Your task to perform on an android device: Search for a sofa on article.com Image 0: 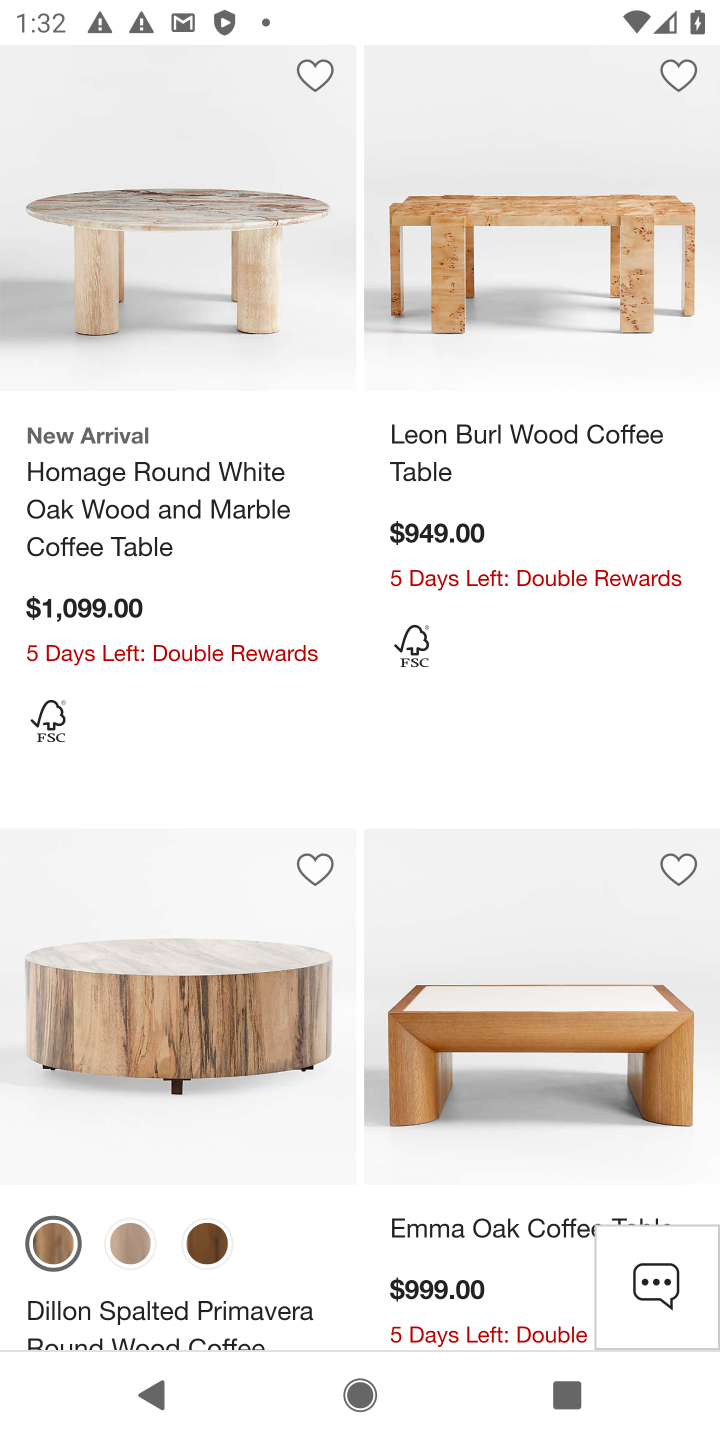
Step 0: press home button
Your task to perform on an android device: Search for a sofa on article.com Image 1: 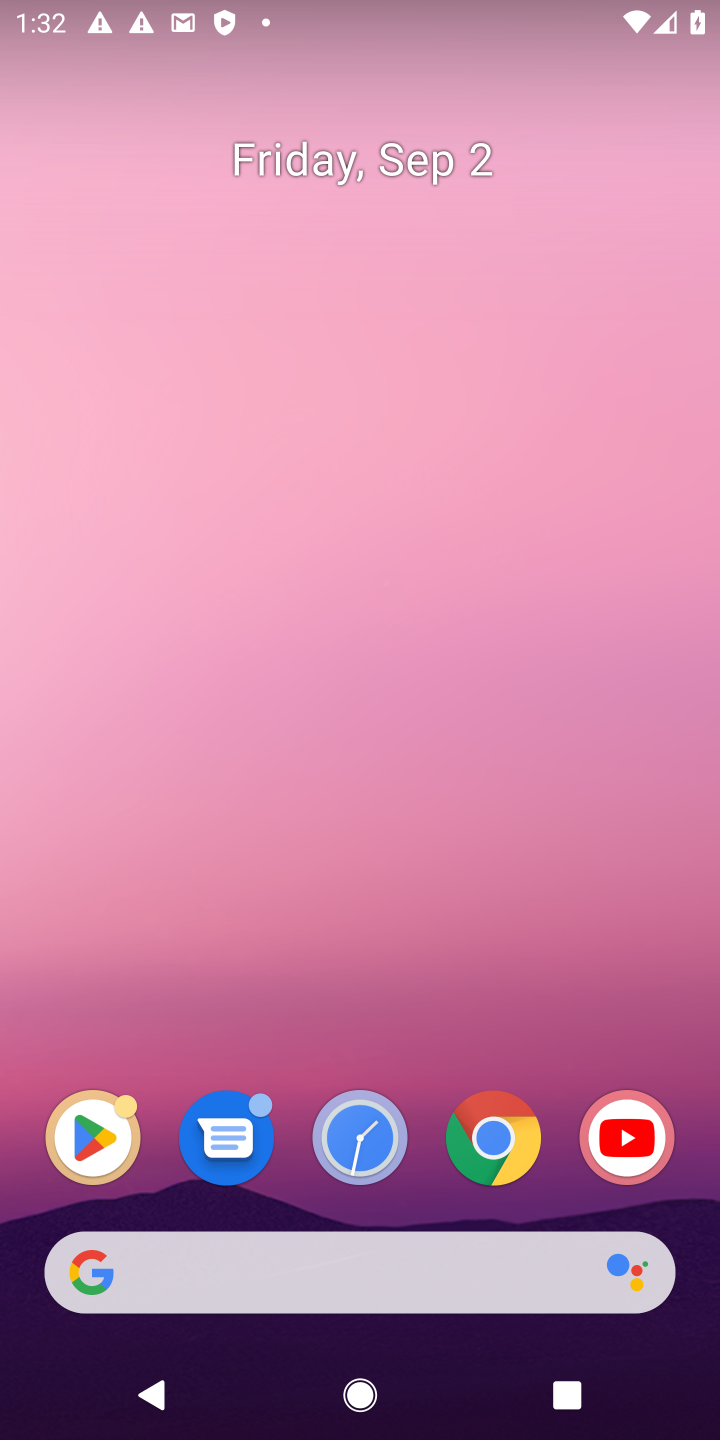
Step 1: click (484, 1147)
Your task to perform on an android device: Search for a sofa on article.com Image 2: 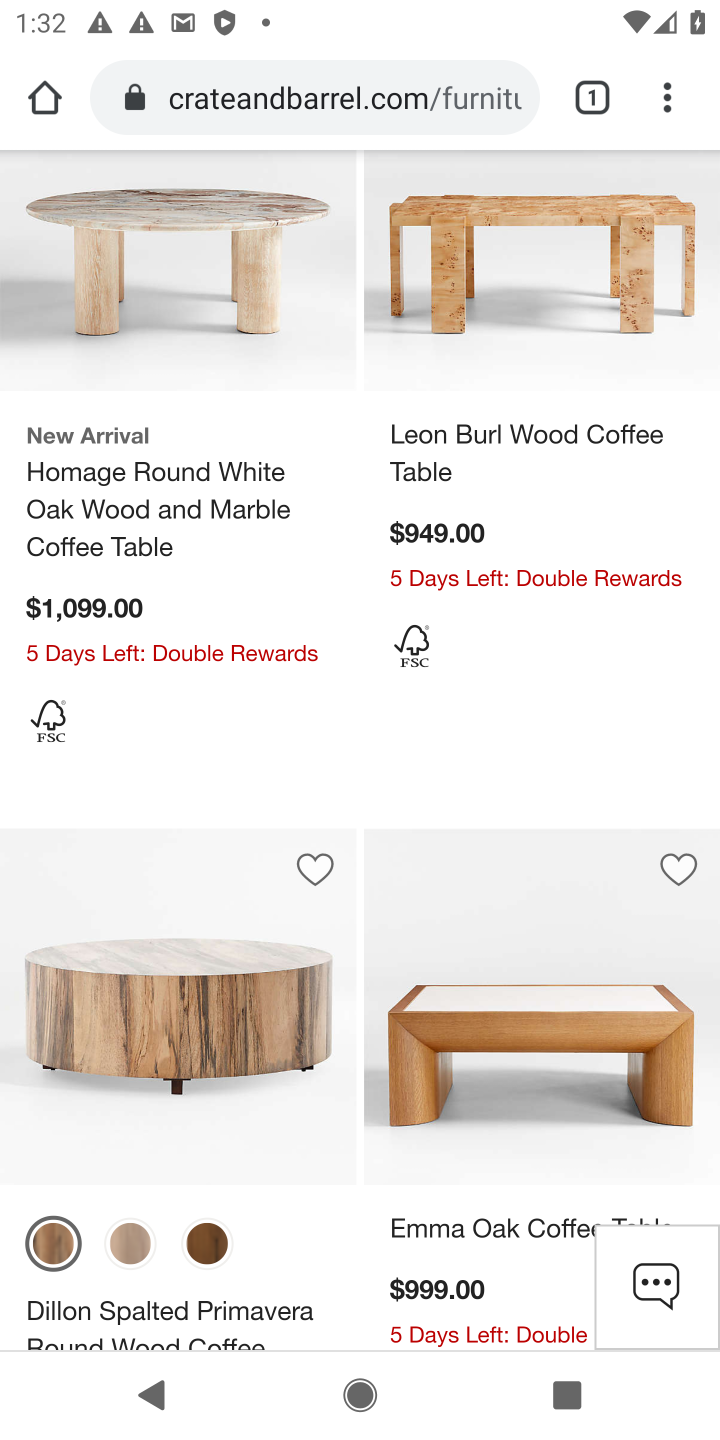
Step 2: click (592, 93)
Your task to perform on an android device: Search for a sofa on article.com Image 3: 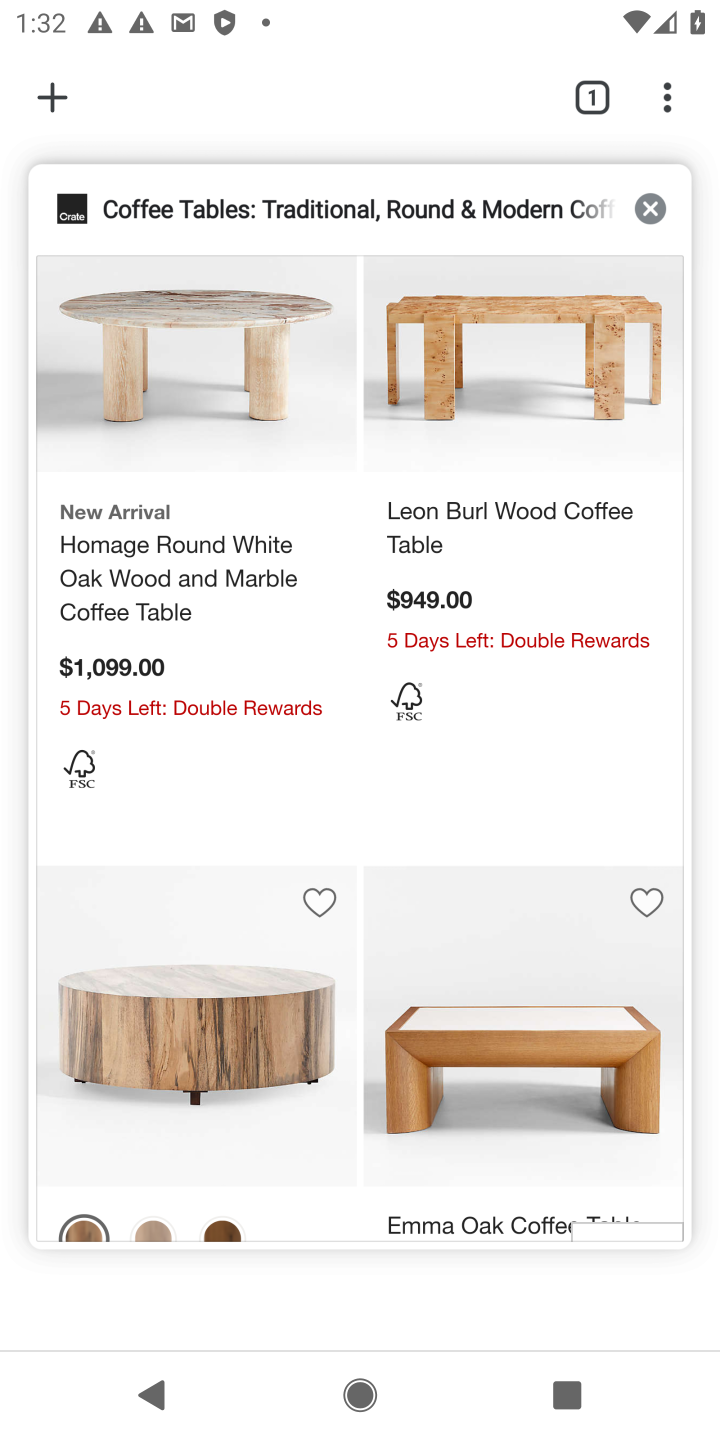
Step 3: click (285, 411)
Your task to perform on an android device: Search for a sofa on article.com Image 4: 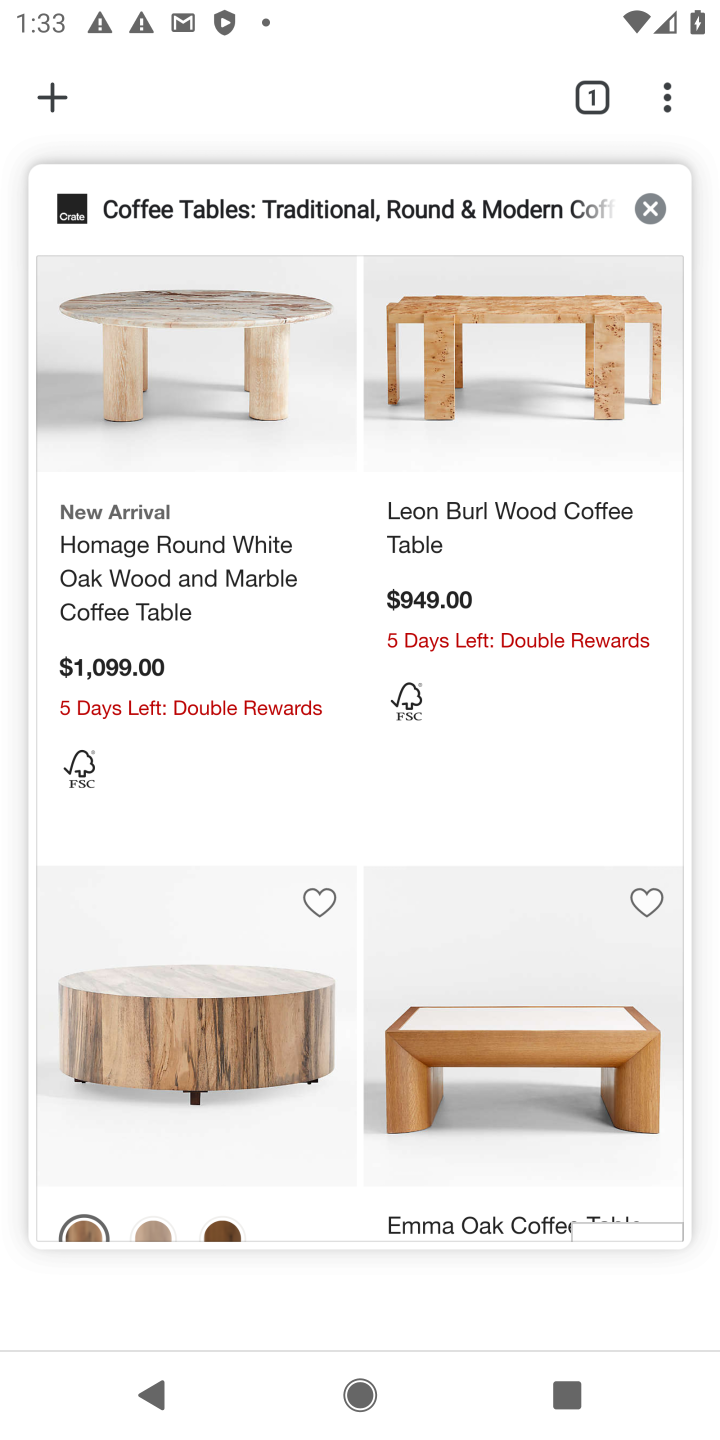
Step 4: click (38, 96)
Your task to perform on an android device: Search for a sofa on article.com Image 5: 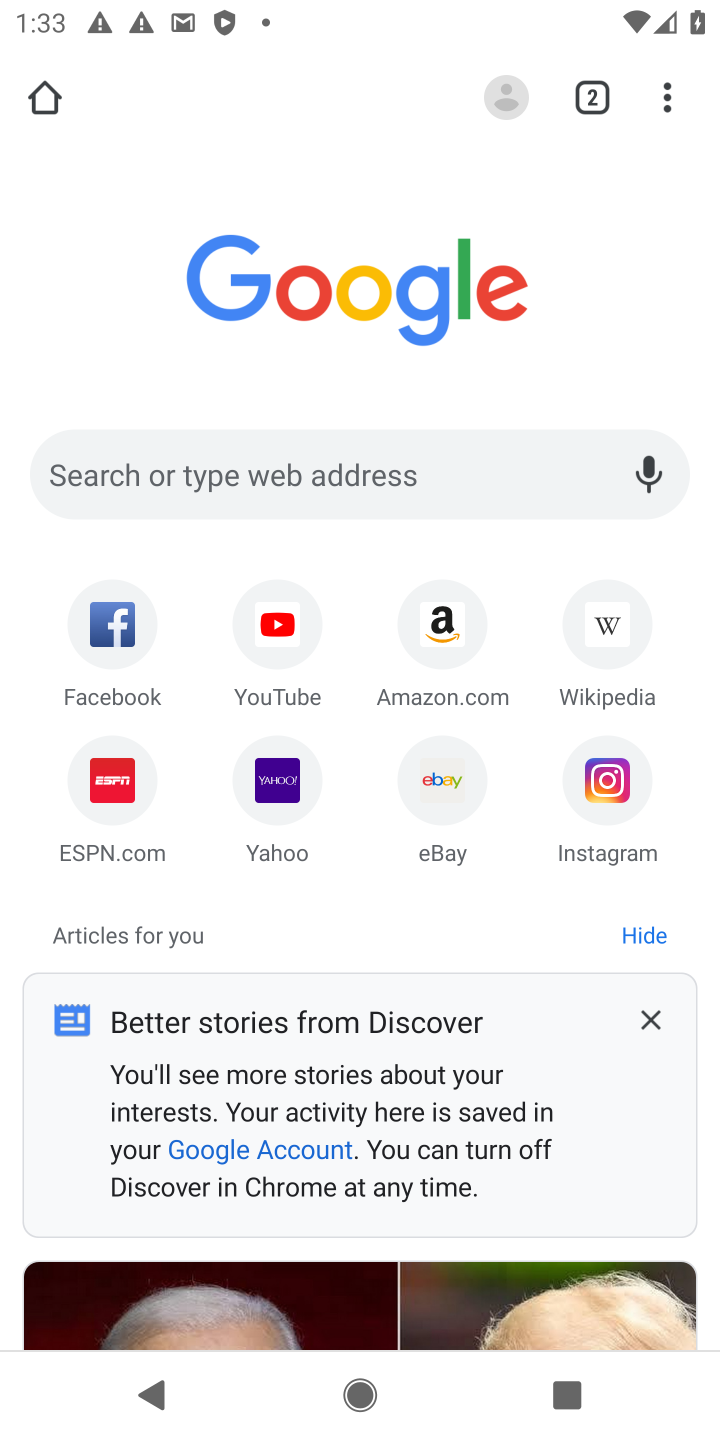
Step 5: click (119, 462)
Your task to perform on an android device: Search for a sofa on article.com Image 6: 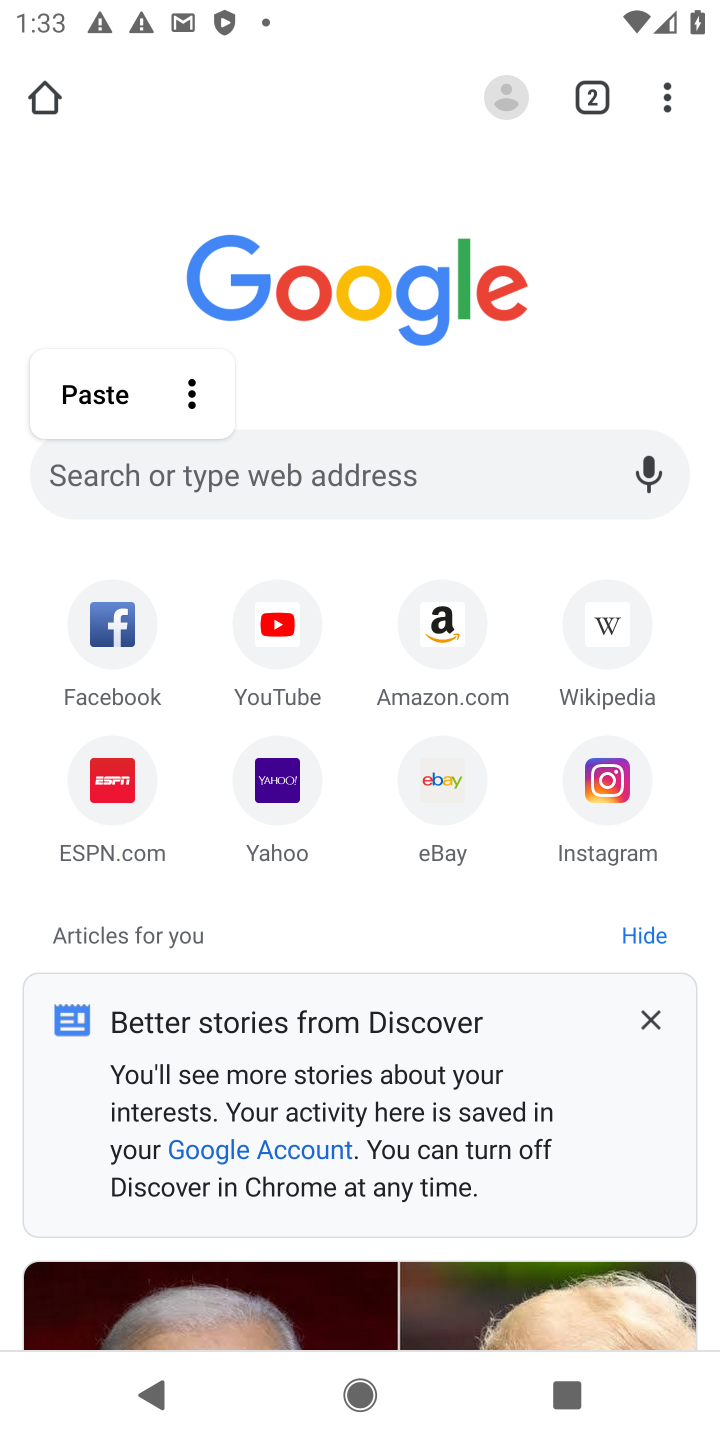
Step 6: click (186, 473)
Your task to perform on an android device: Search for a sofa on article.com Image 7: 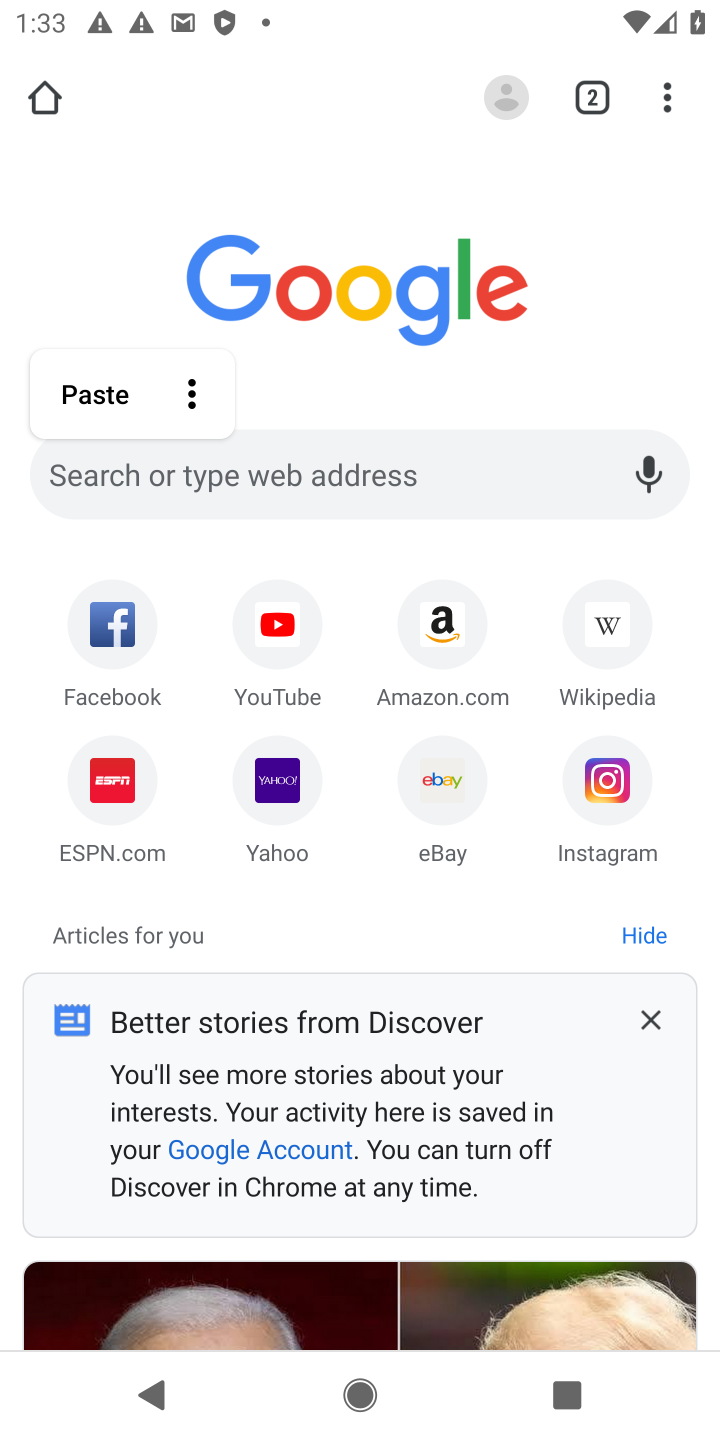
Step 7: click (159, 470)
Your task to perform on an android device: Search for a sofa on article.com Image 8: 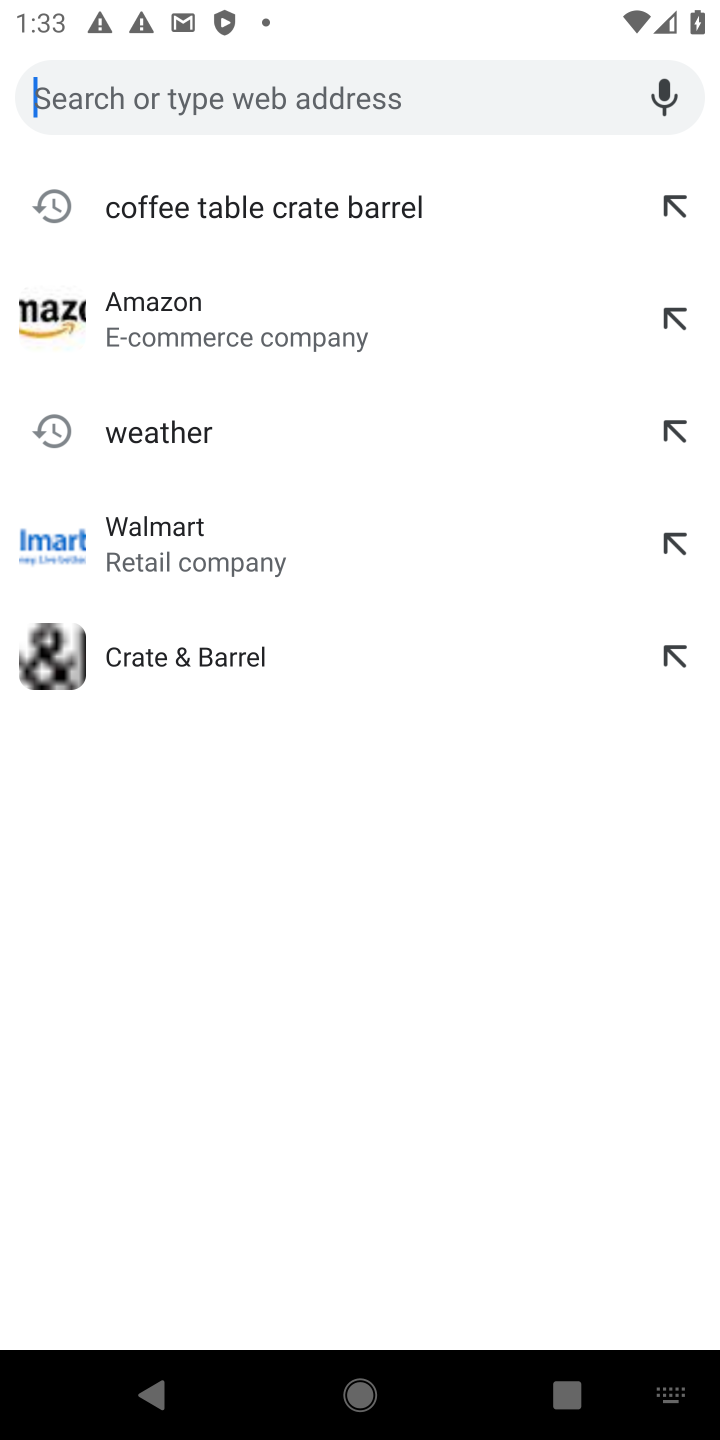
Step 8: type "sofa on article.com"
Your task to perform on an android device: Search for a sofa on article.com Image 9: 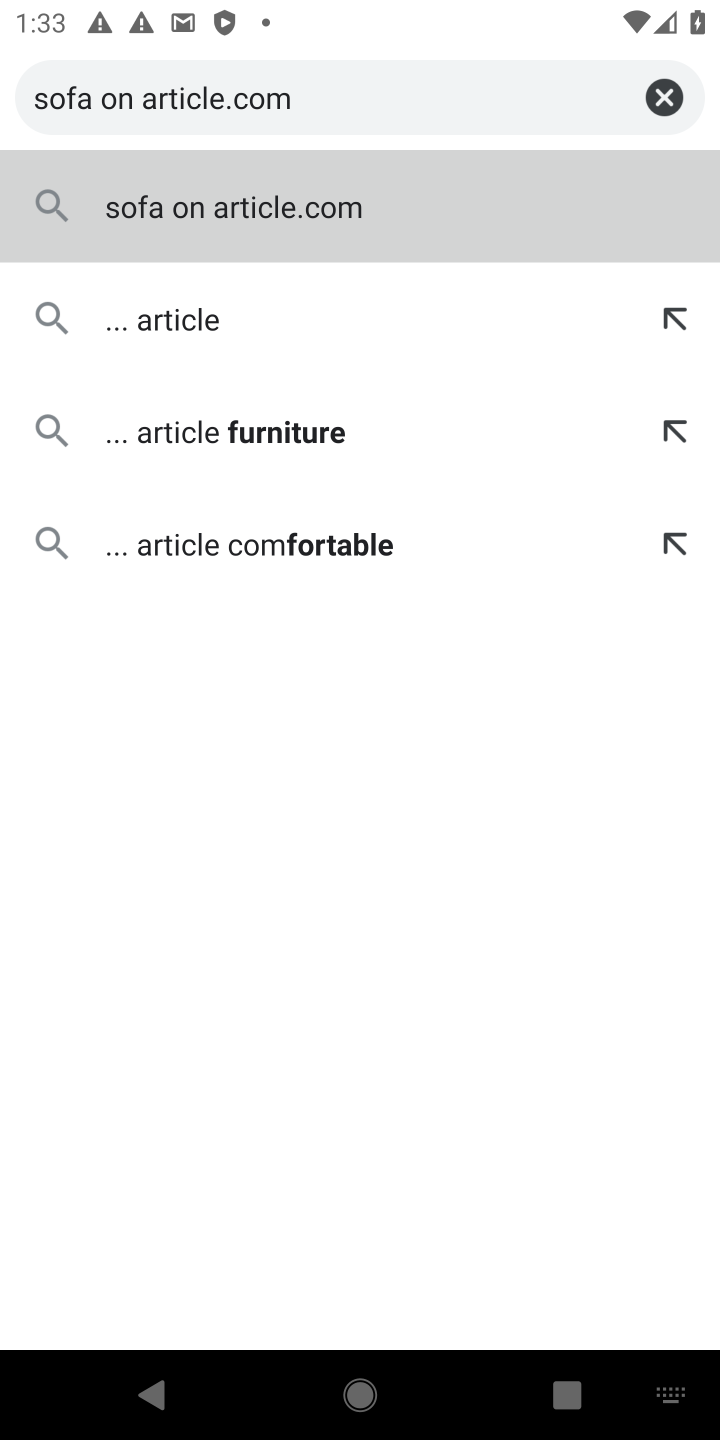
Step 9: click (267, 232)
Your task to perform on an android device: Search for a sofa on article.com Image 10: 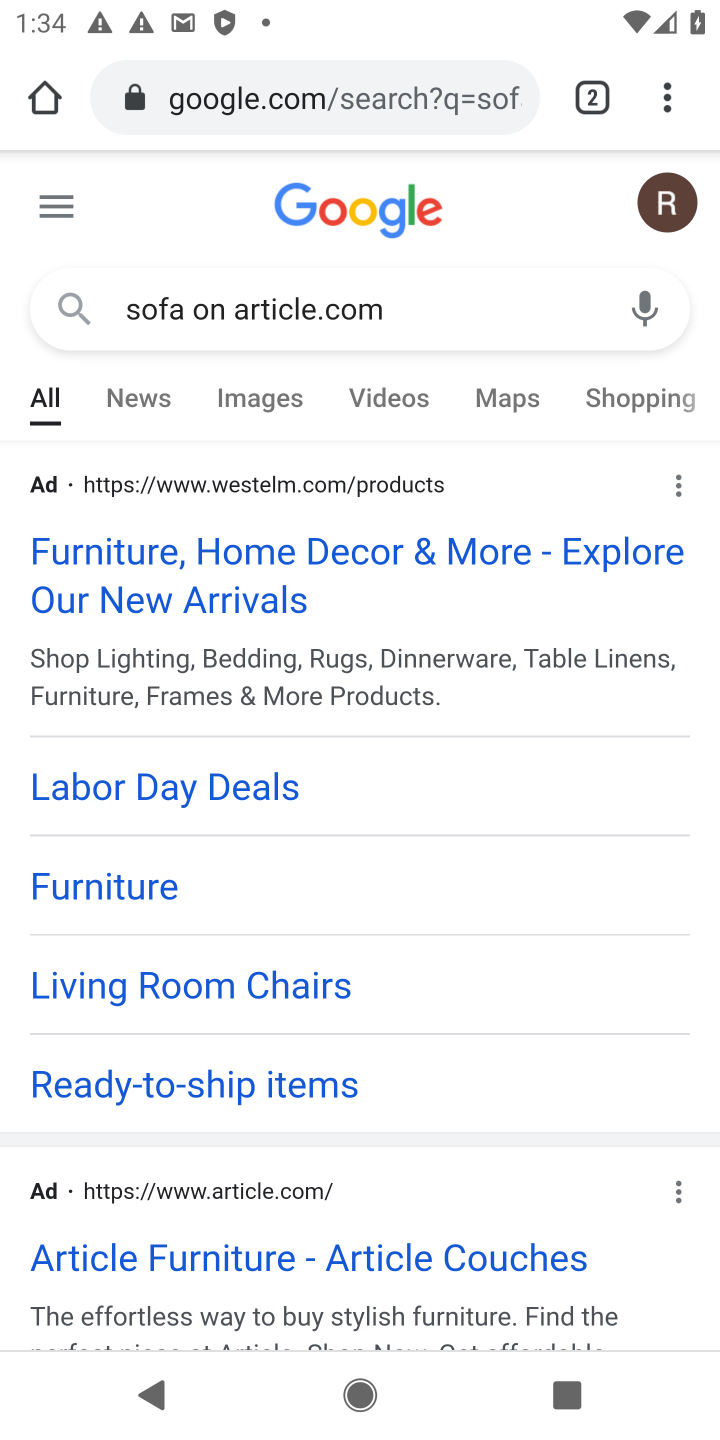
Step 10: drag from (328, 1160) to (299, 510)
Your task to perform on an android device: Search for a sofa on article.com Image 11: 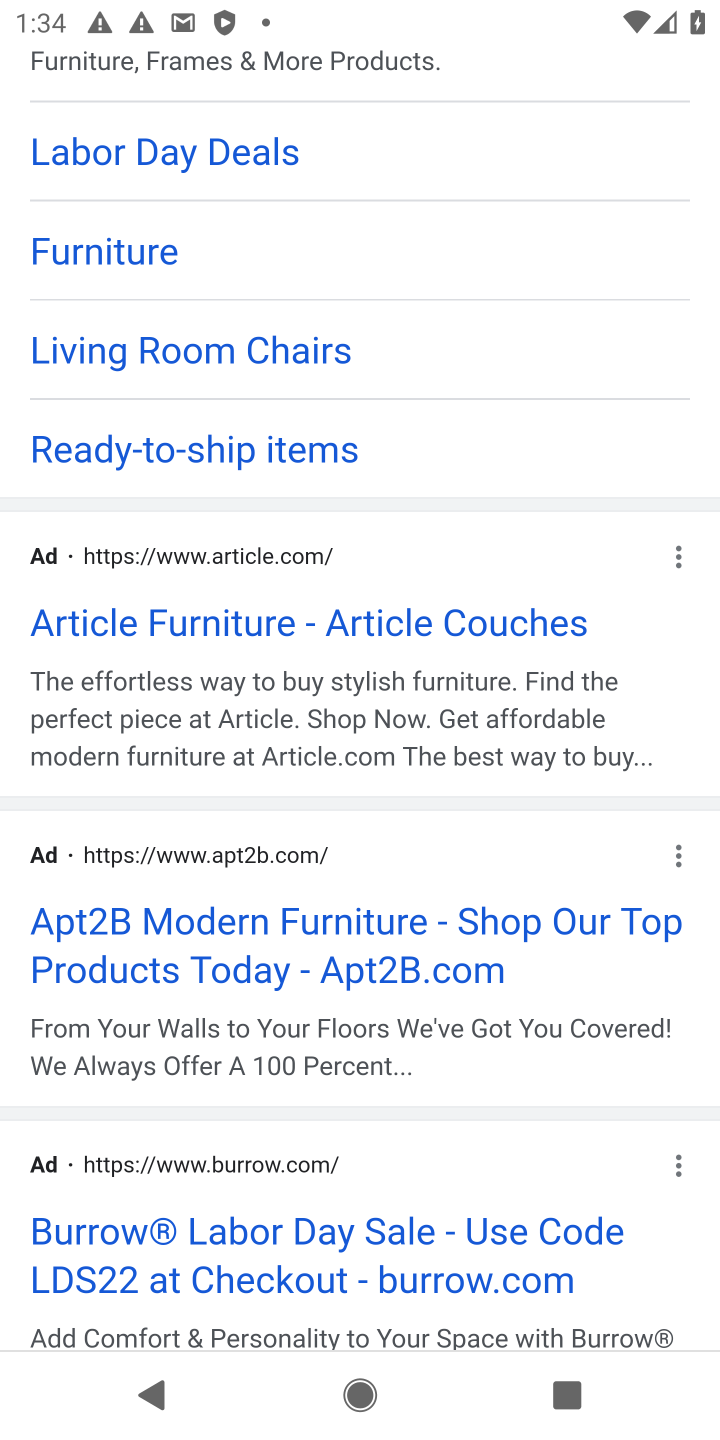
Step 11: drag from (365, 502) to (365, 1333)
Your task to perform on an android device: Search for a sofa on article.com Image 12: 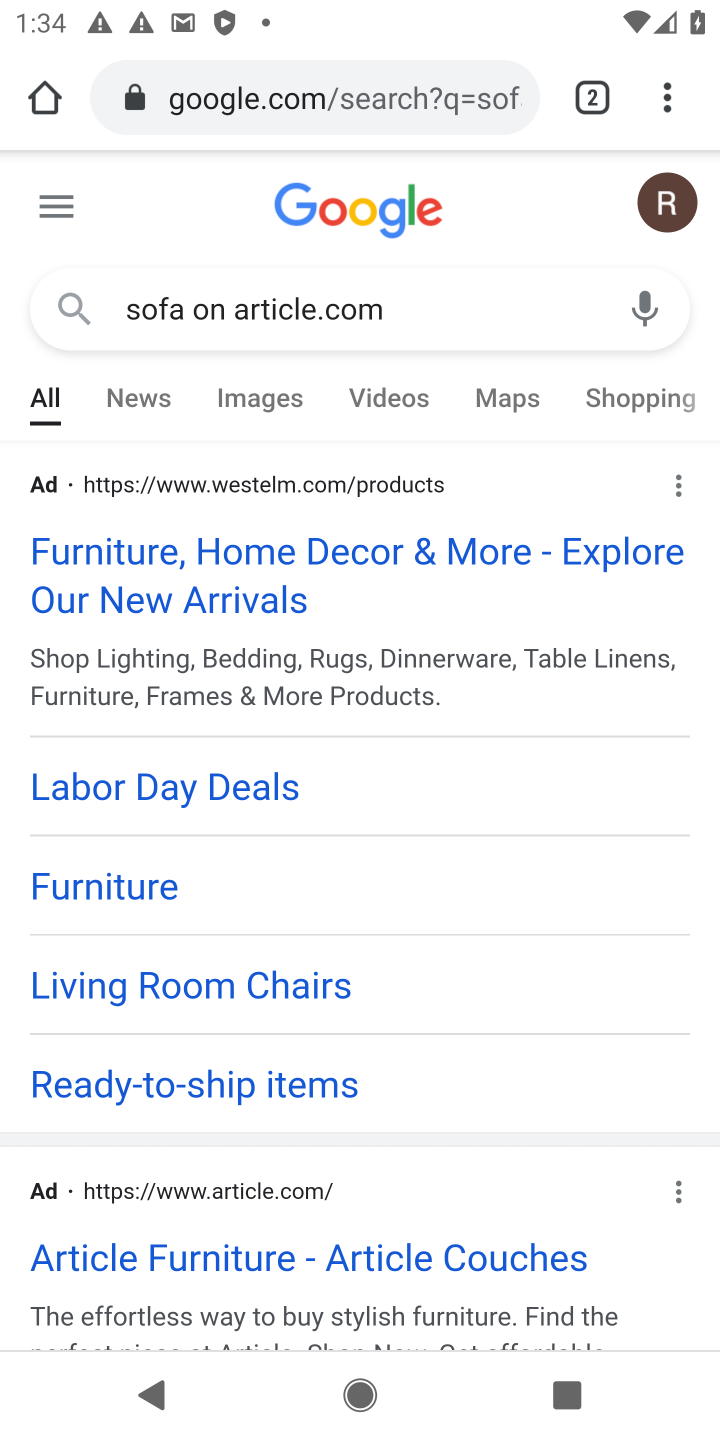
Step 12: drag from (410, 1221) to (414, 294)
Your task to perform on an android device: Search for a sofa on article.com Image 13: 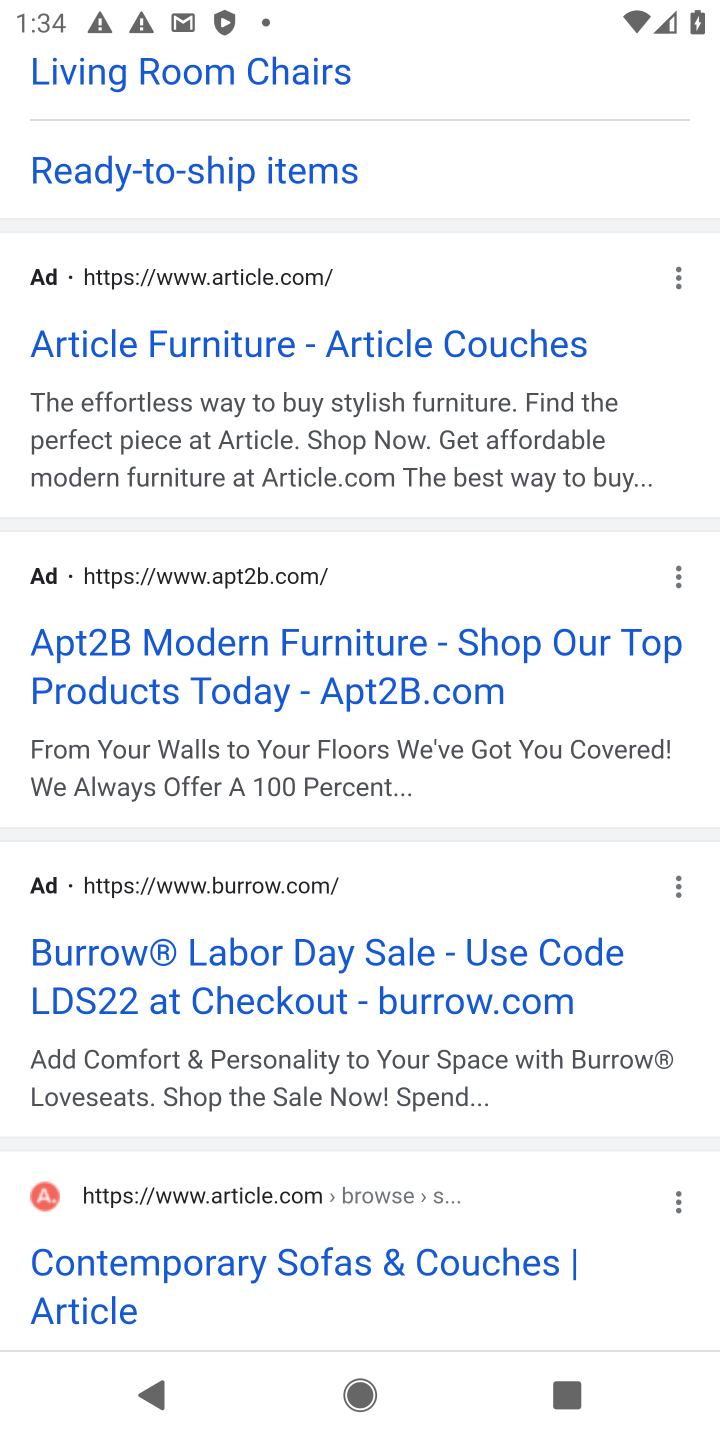
Step 13: click (329, 1266)
Your task to perform on an android device: Search for a sofa on article.com Image 14: 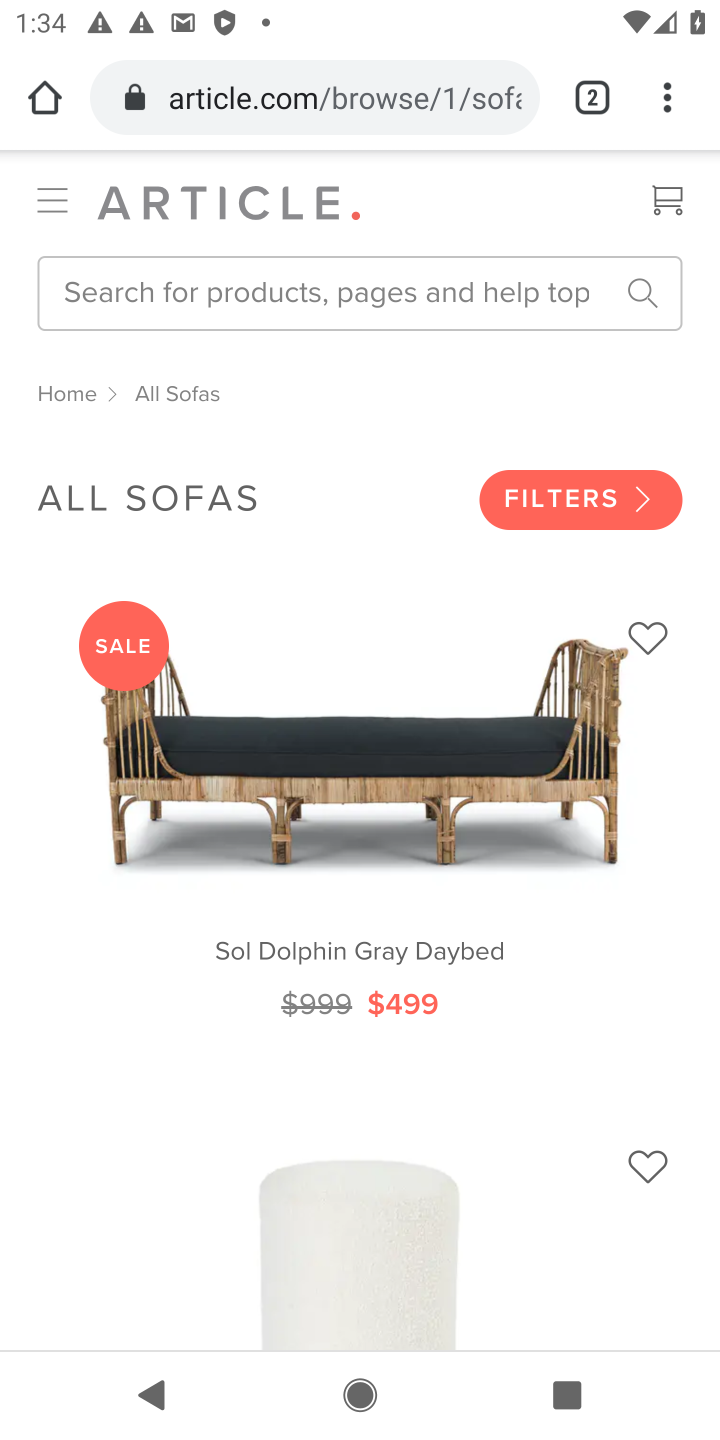
Step 14: drag from (198, 1113) to (237, 257)
Your task to perform on an android device: Search for a sofa on article.com Image 15: 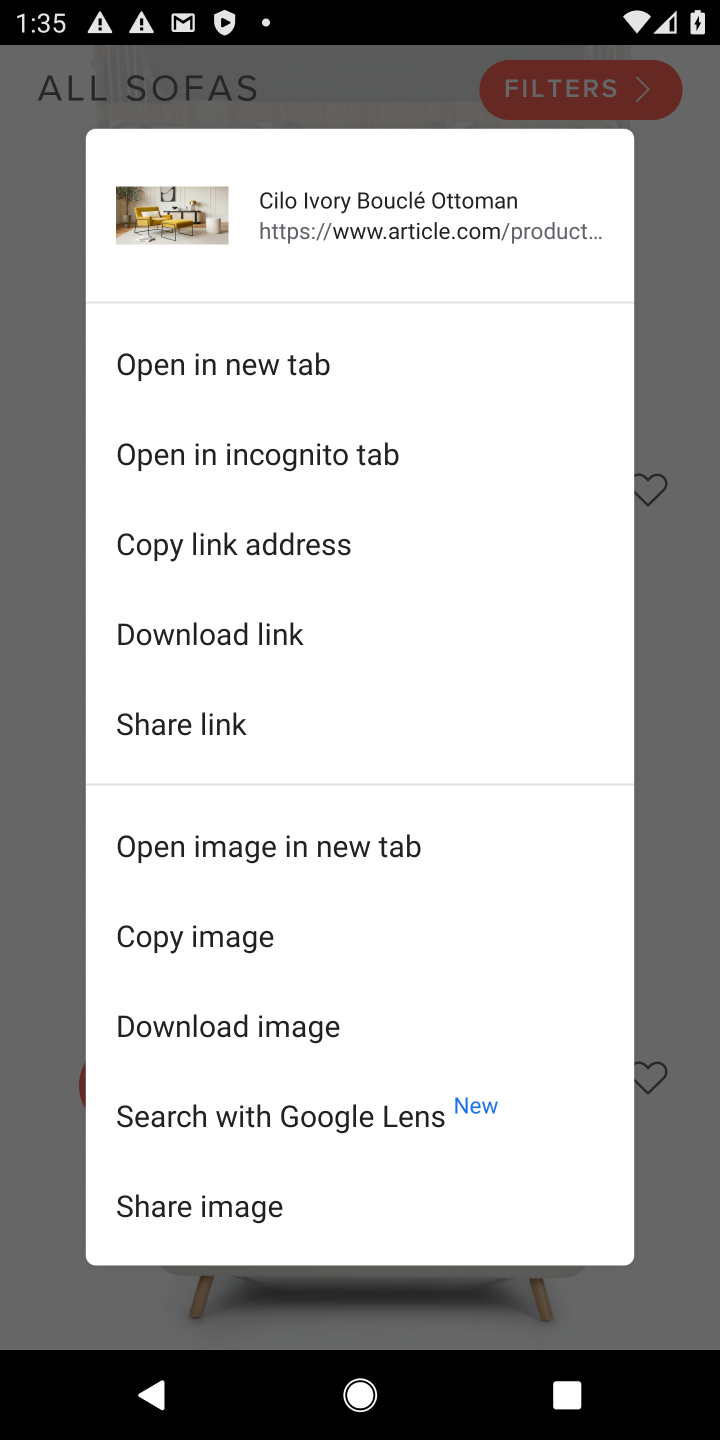
Step 15: click (50, 623)
Your task to perform on an android device: Search for a sofa on article.com Image 16: 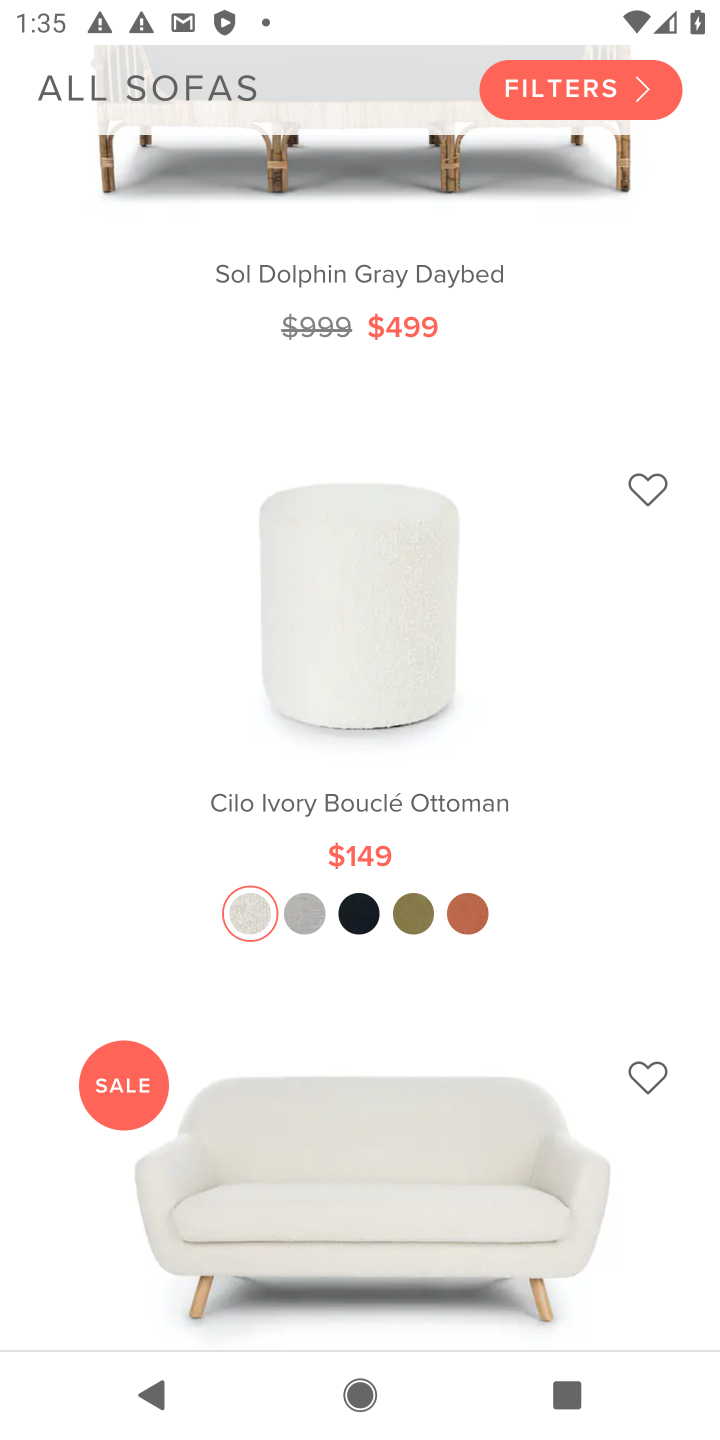
Step 16: task complete